Your task to perform on an android device: snooze an email in the gmail app Image 0: 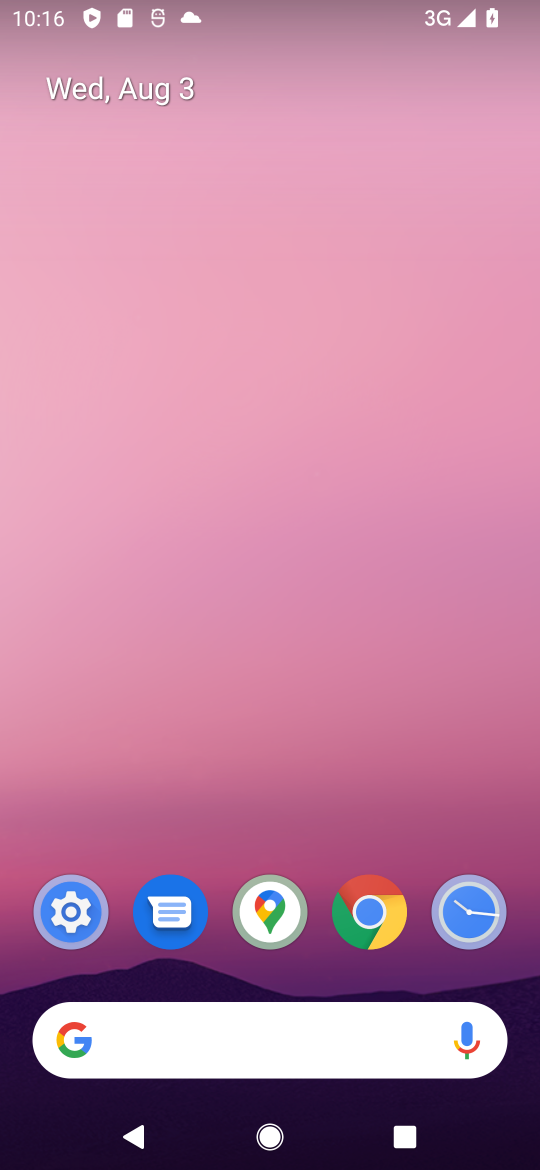
Step 0: drag from (302, 718) to (224, 148)
Your task to perform on an android device: snooze an email in the gmail app Image 1: 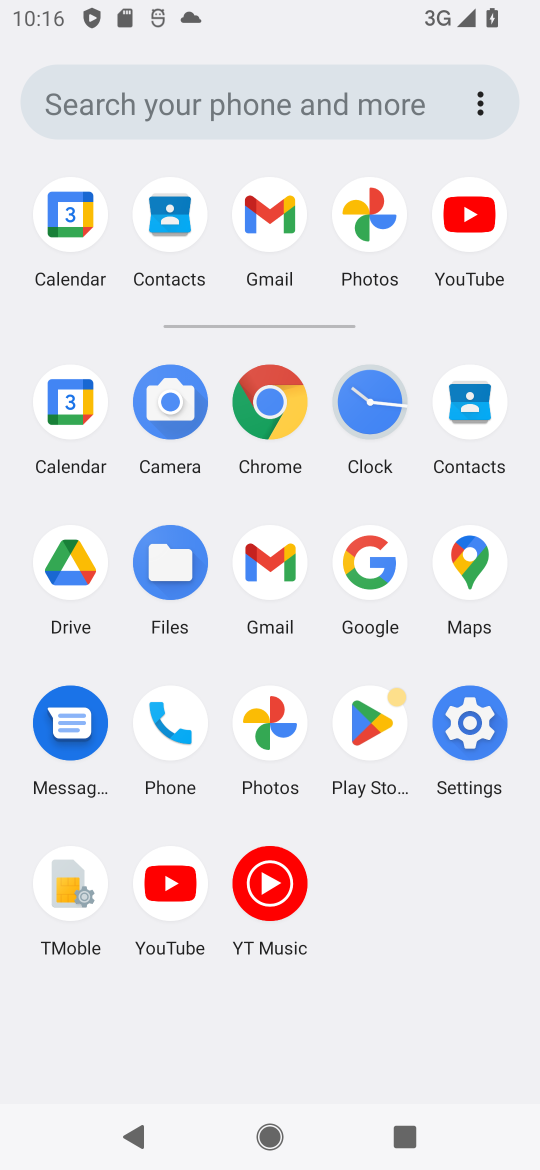
Step 1: click (284, 584)
Your task to perform on an android device: snooze an email in the gmail app Image 2: 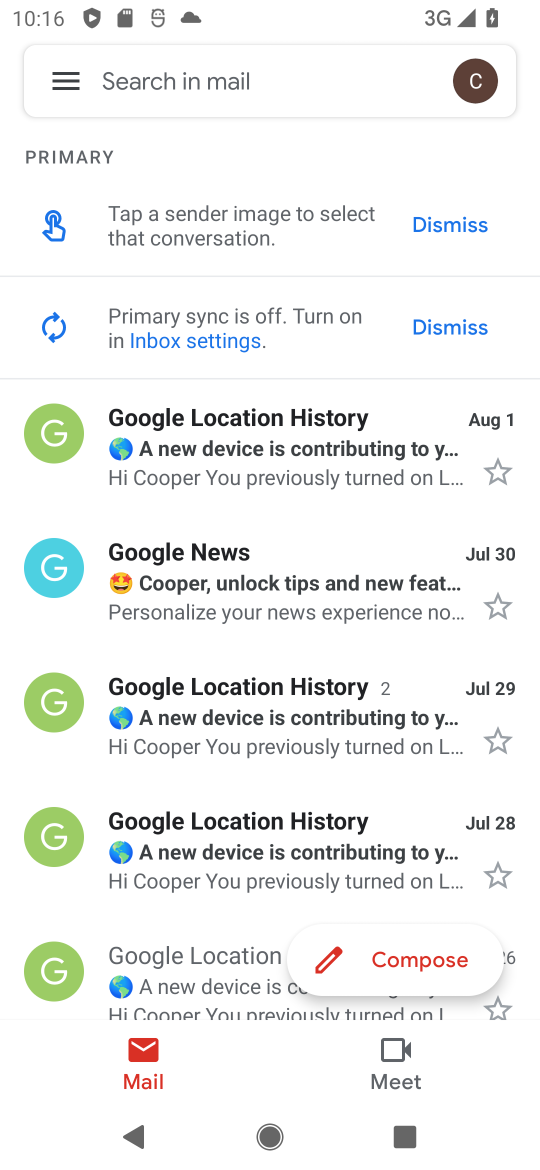
Step 2: click (196, 480)
Your task to perform on an android device: snooze an email in the gmail app Image 3: 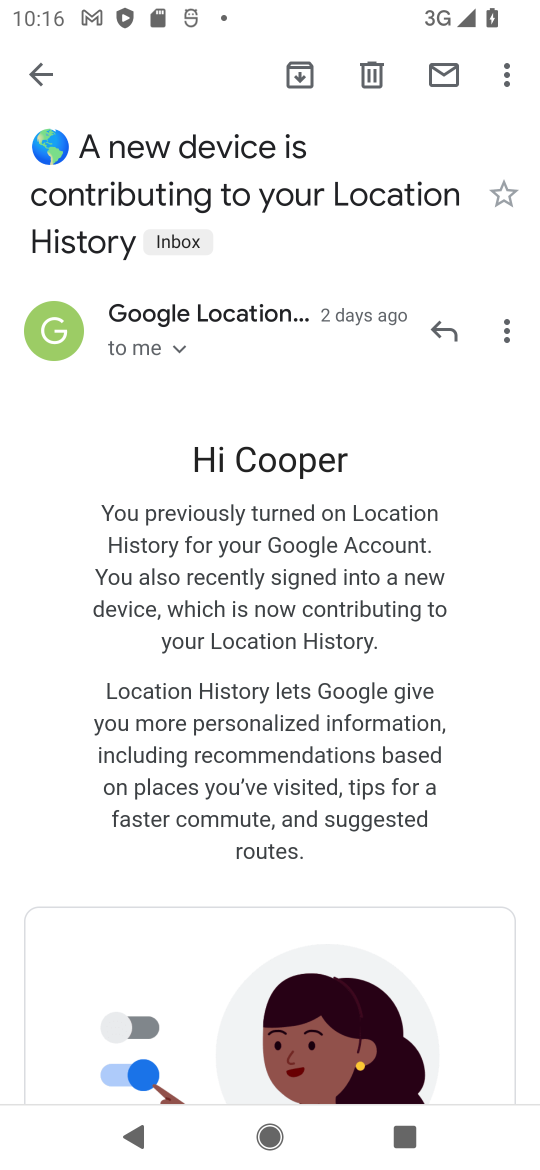
Step 3: click (513, 84)
Your task to perform on an android device: snooze an email in the gmail app Image 4: 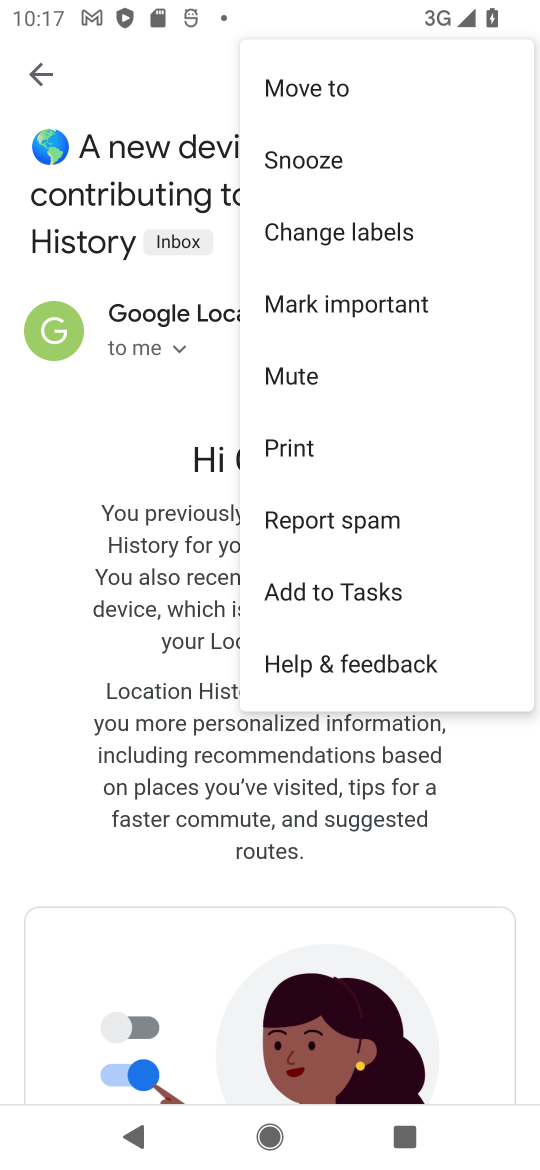
Step 4: click (320, 160)
Your task to perform on an android device: snooze an email in the gmail app Image 5: 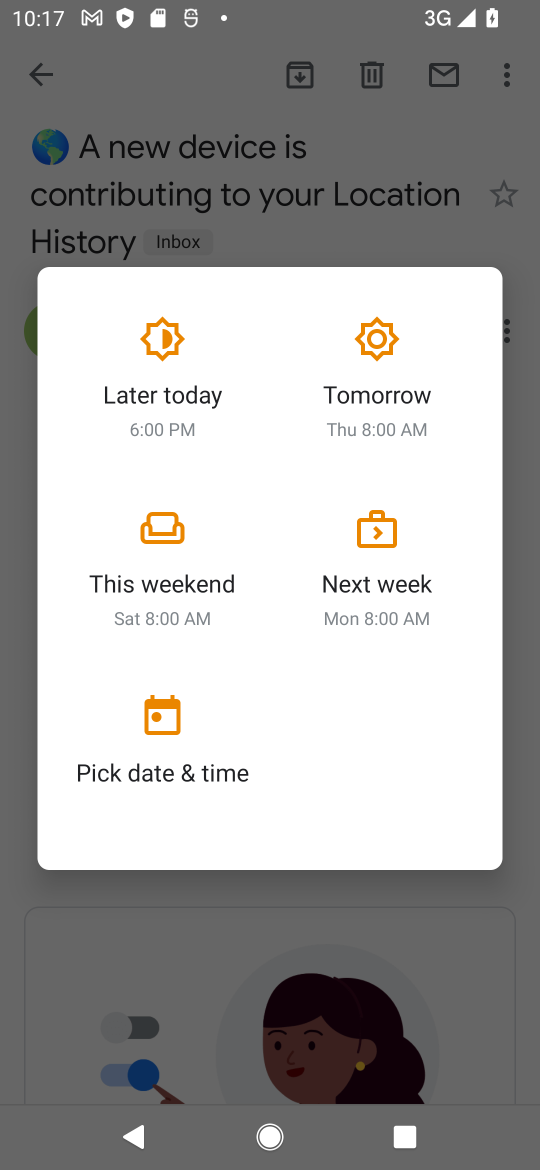
Step 5: click (118, 331)
Your task to perform on an android device: snooze an email in the gmail app Image 6: 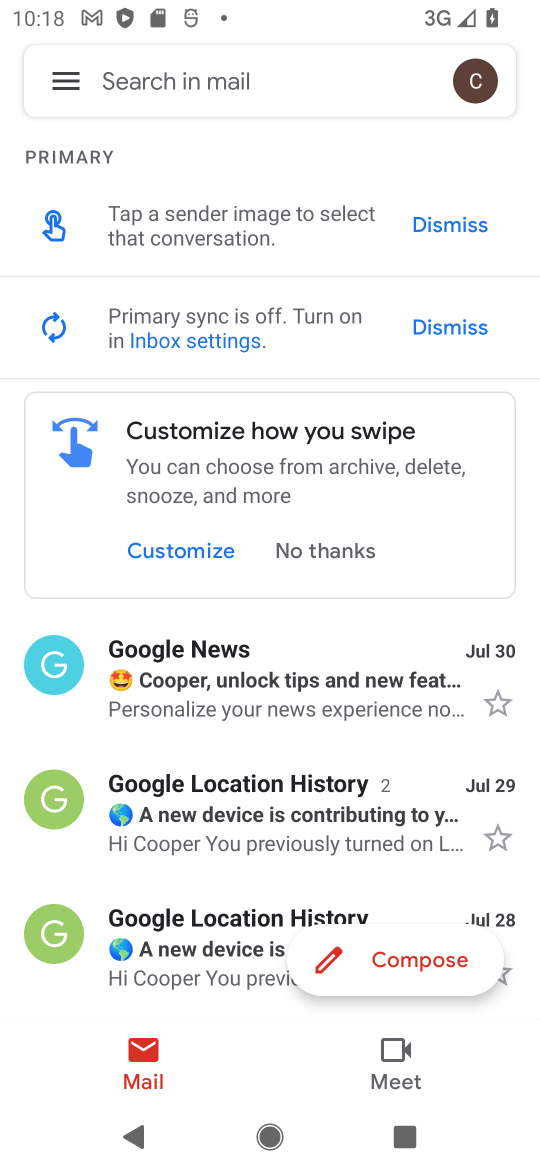
Step 6: task complete